Your task to perform on an android device: uninstall "Booking.com: Hotels and more" Image 0: 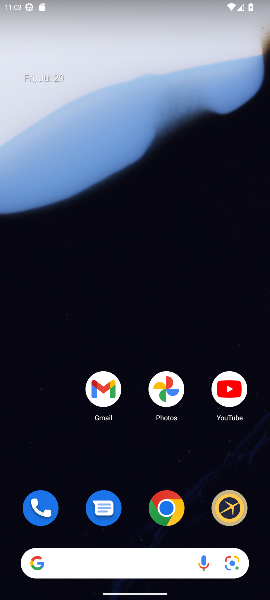
Step 0: drag from (109, 549) to (137, 74)
Your task to perform on an android device: uninstall "Booking.com: Hotels and more" Image 1: 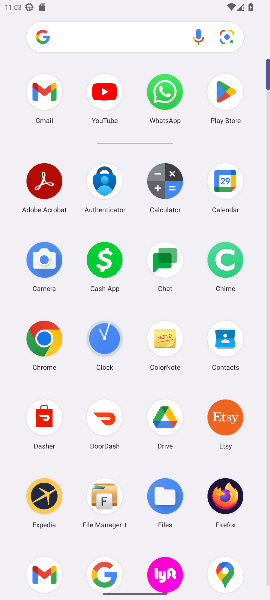
Step 1: click (225, 94)
Your task to perform on an android device: uninstall "Booking.com: Hotels and more" Image 2: 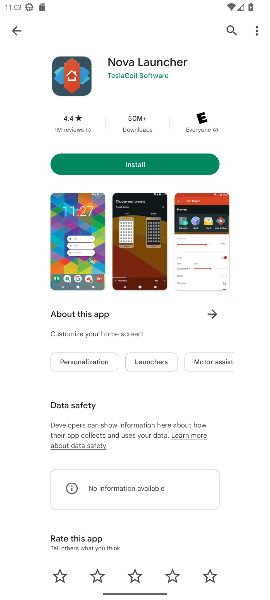
Step 2: click (224, 26)
Your task to perform on an android device: uninstall "Booking.com: Hotels and more" Image 3: 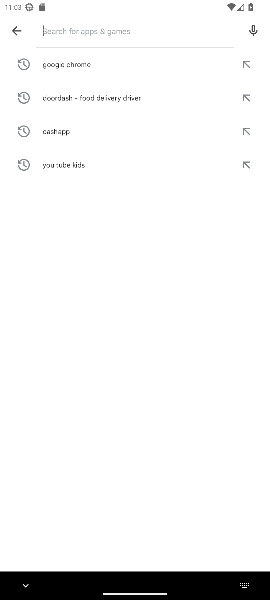
Step 3: type "booking.com: hotels and more"
Your task to perform on an android device: uninstall "Booking.com: Hotels and more" Image 4: 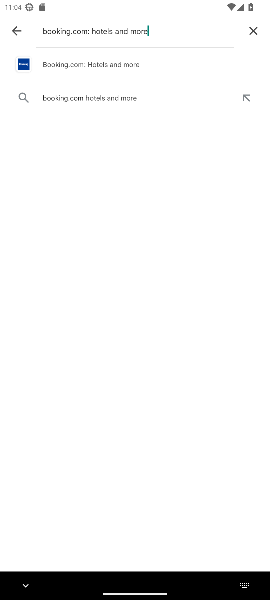
Step 4: click (121, 66)
Your task to perform on an android device: uninstall "Booking.com: Hotels and more" Image 5: 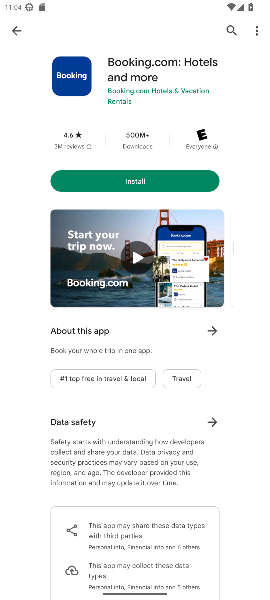
Step 5: task complete